Your task to perform on an android device: Open Chrome and go to the settings page Image 0: 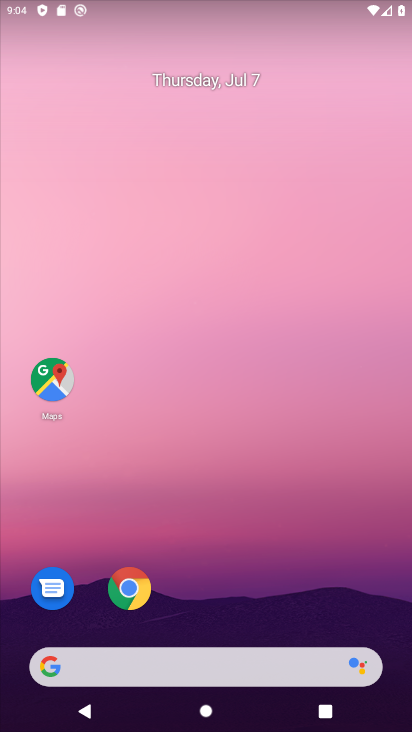
Step 0: click (106, 599)
Your task to perform on an android device: Open Chrome and go to the settings page Image 1: 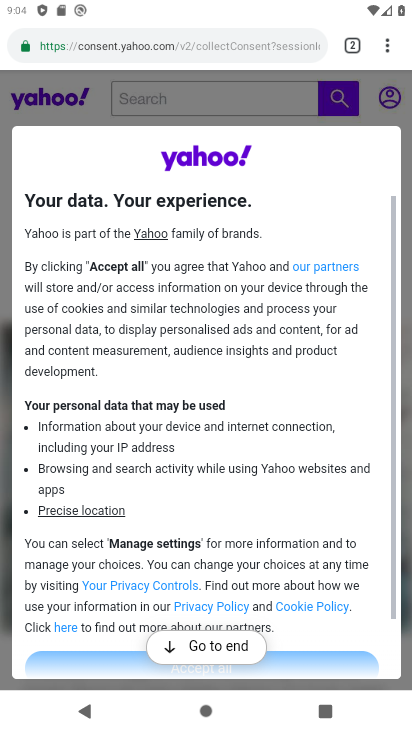
Step 1: click (382, 43)
Your task to perform on an android device: Open Chrome and go to the settings page Image 2: 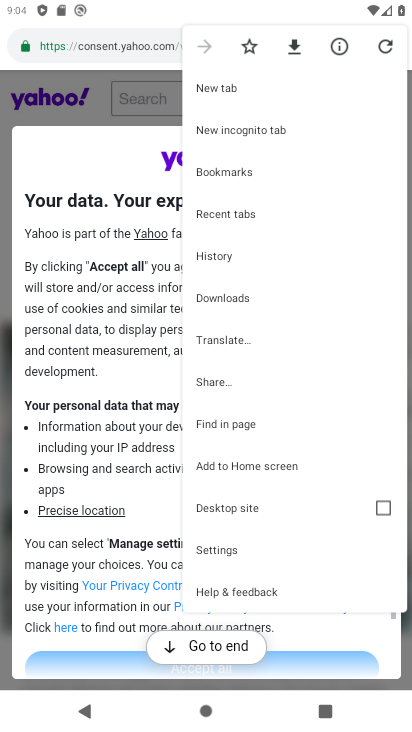
Step 2: click (226, 539)
Your task to perform on an android device: Open Chrome and go to the settings page Image 3: 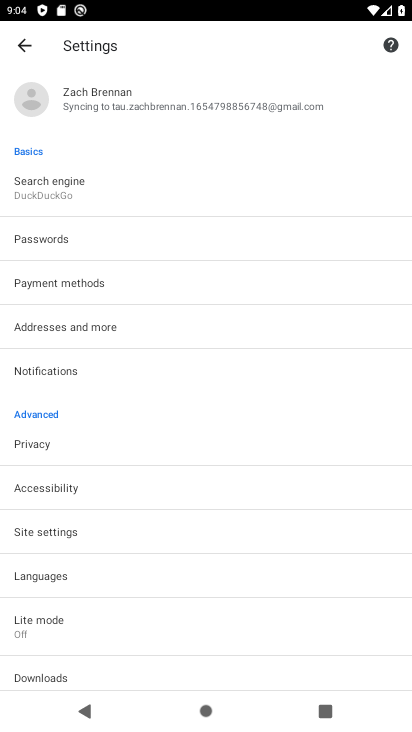
Step 3: task complete